Your task to perform on an android device: Turn off the flashlight Image 0: 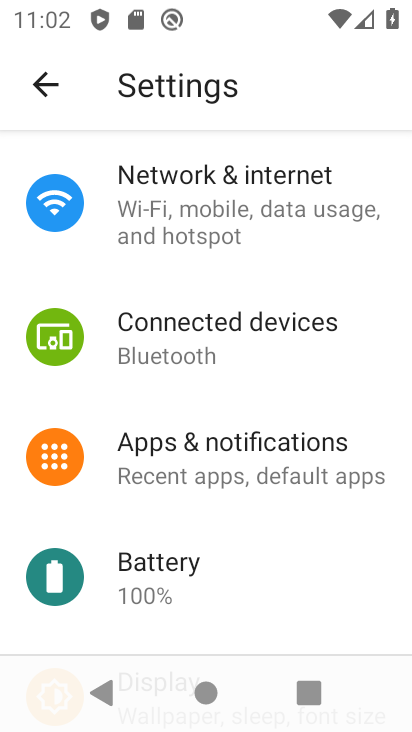
Step 0: task impossible